Your task to perform on an android device: Go to Google Image 0: 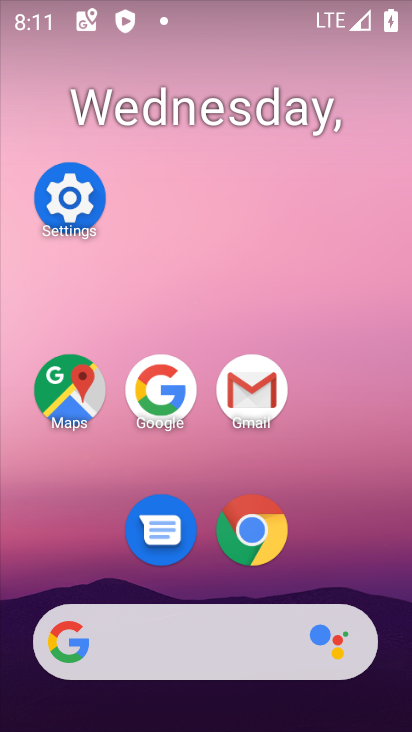
Step 0: click (170, 411)
Your task to perform on an android device: Go to Google Image 1: 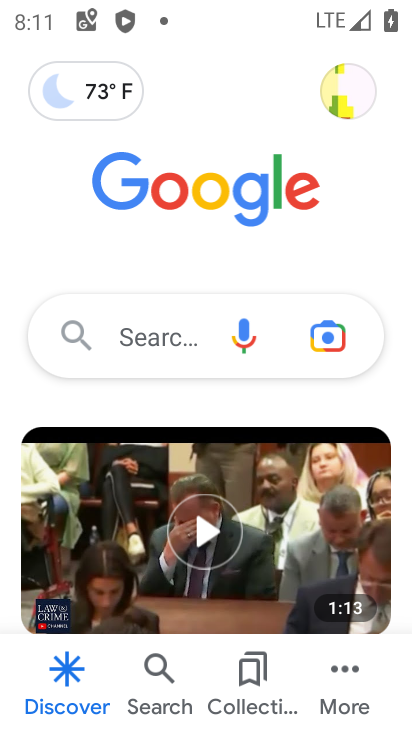
Step 1: task complete